Your task to perform on an android device: toggle airplane mode Image 0: 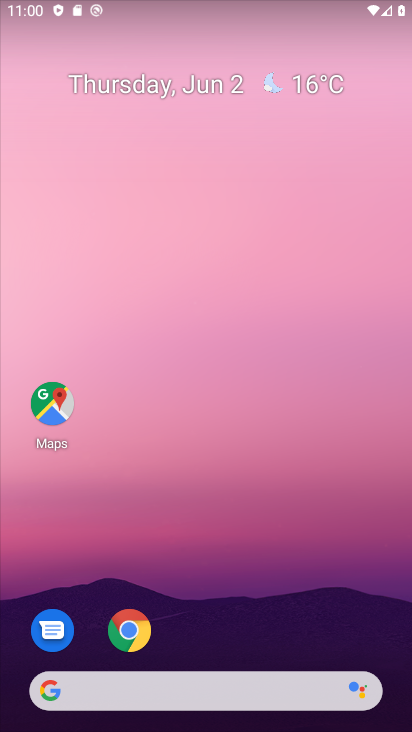
Step 0: drag from (215, 649) to (259, 8)
Your task to perform on an android device: toggle airplane mode Image 1: 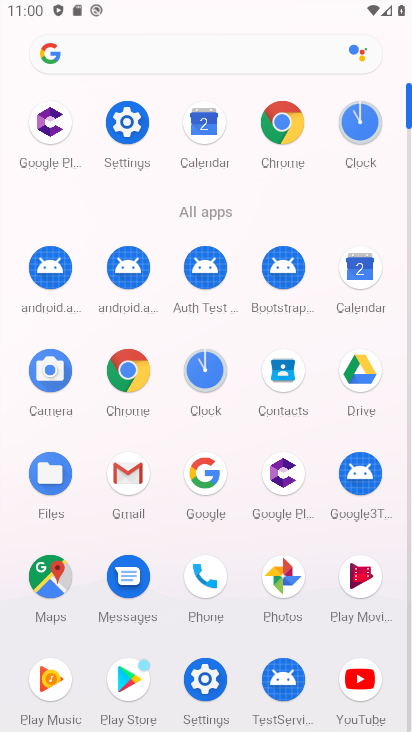
Step 1: click (129, 173)
Your task to perform on an android device: toggle airplane mode Image 2: 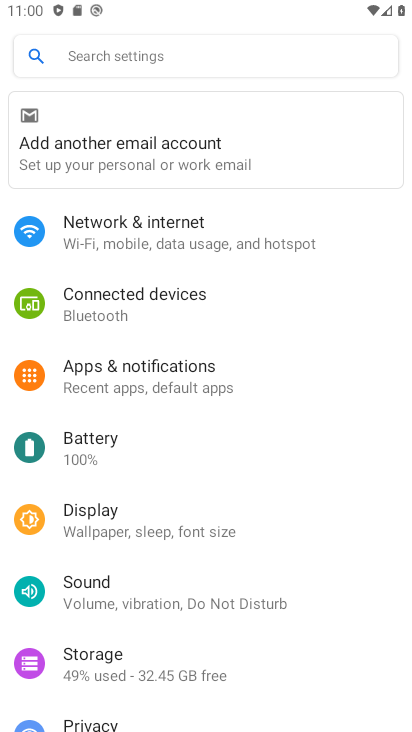
Step 2: click (166, 222)
Your task to perform on an android device: toggle airplane mode Image 3: 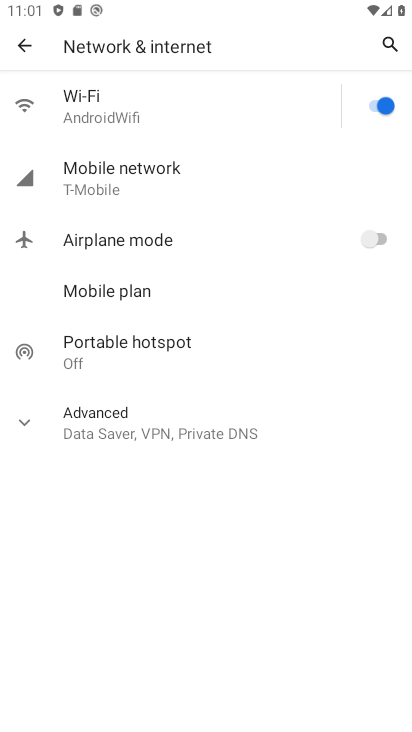
Step 3: click (396, 237)
Your task to perform on an android device: toggle airplane mode Image 4: 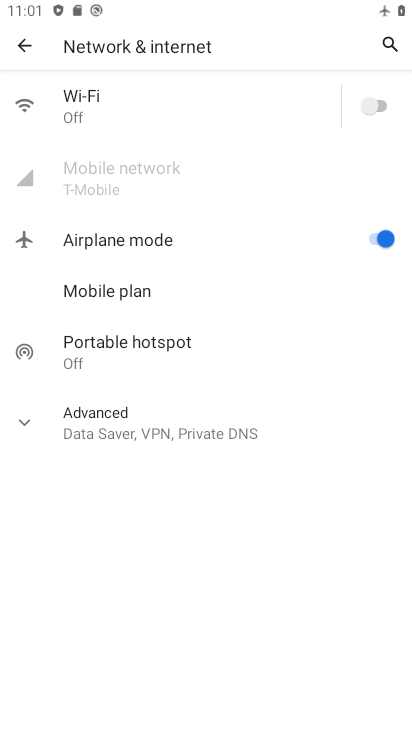
Step 4: task complete